Your task to perform on an android device: Go to eBay Image 0: 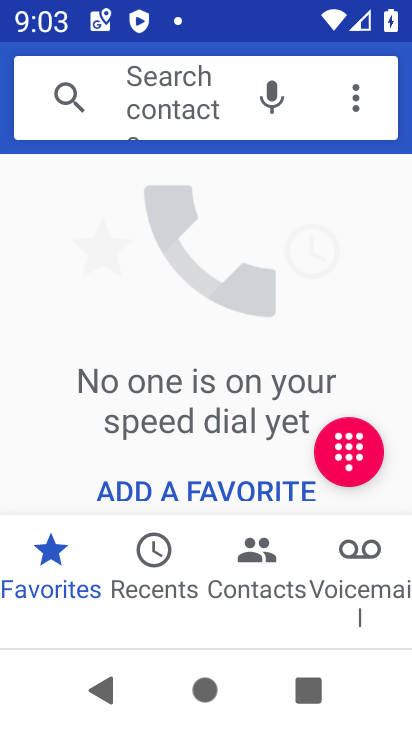
Step 0: press home button
Your task to perform on an android device: Go to eBay Image 1: 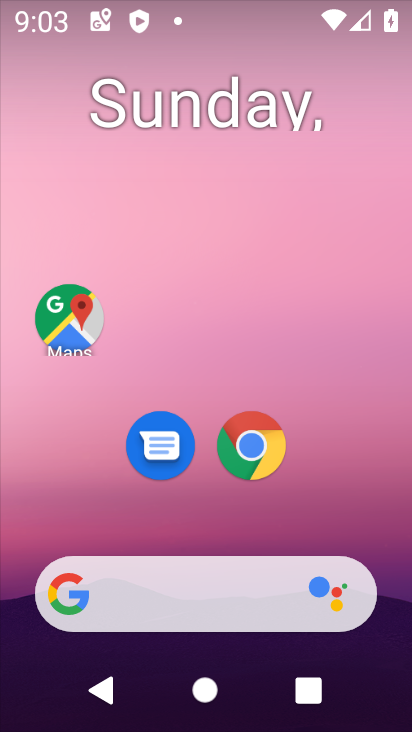
Step 1: click (246, 441)
Your task to perform on an android device: Go to eBay Image 2: 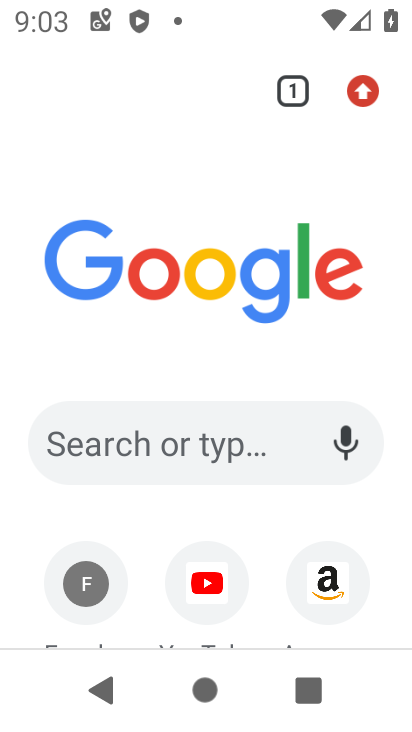
Step 2: click (147, 453)
Your task to perform on an android device: Go to eBay Image 3: 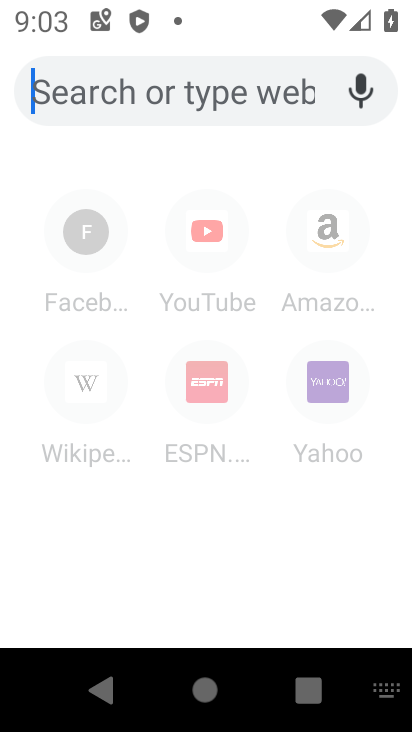
Step 3: type "ebay"
Your task to perform on an android device: Go to eBay Image 4: 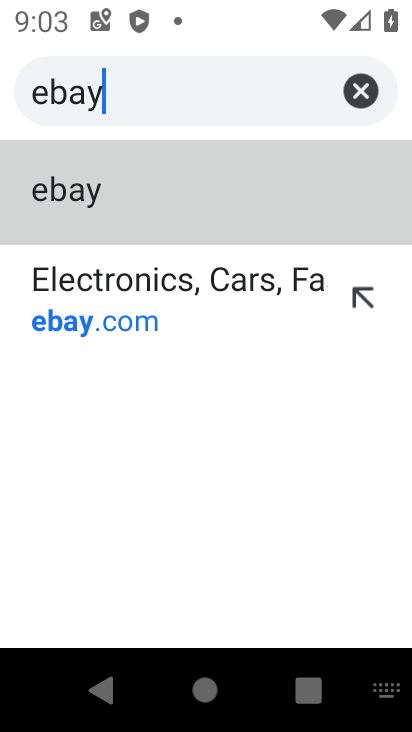
Step 4: click (80, 284)
Your task to perform on an android device: Go to eBay Image 5: 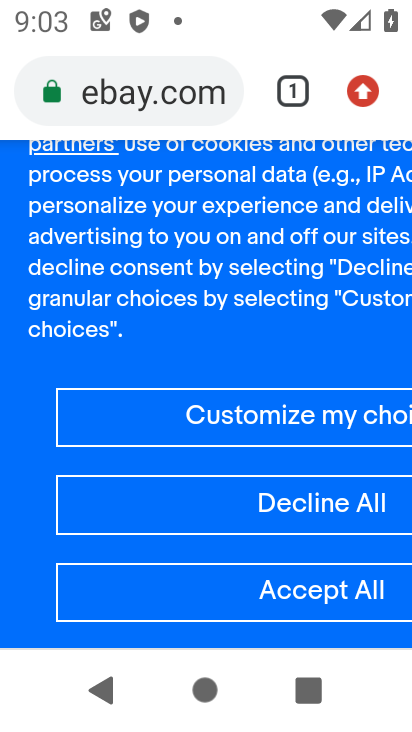
Step 5: task complete